Your task to perform on an android device: Do I have any events tomorrow? Image 0: 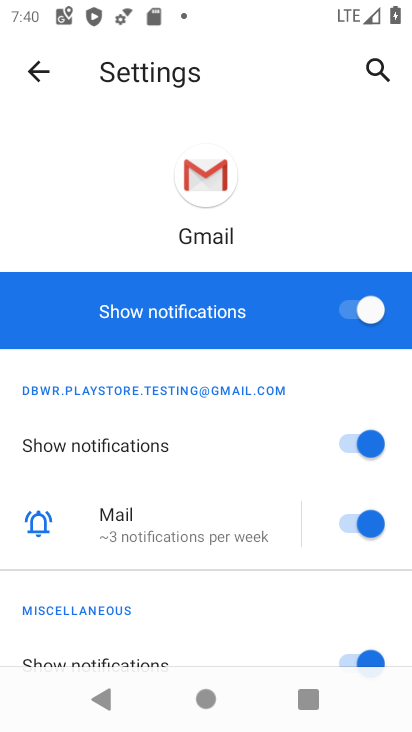
Step 0: press home button
Your task to perform on an android device: Do I have any events tomorrow? Image 1: 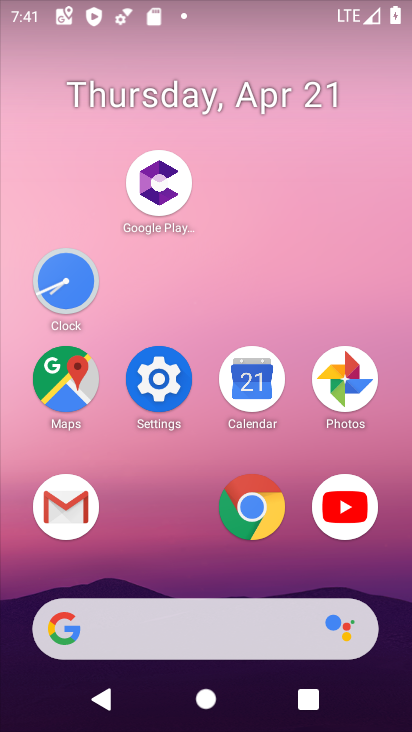
Step 1: click (257, 373)
Your task to perform on an android device: Do I have any events tomorrow? Image 2: 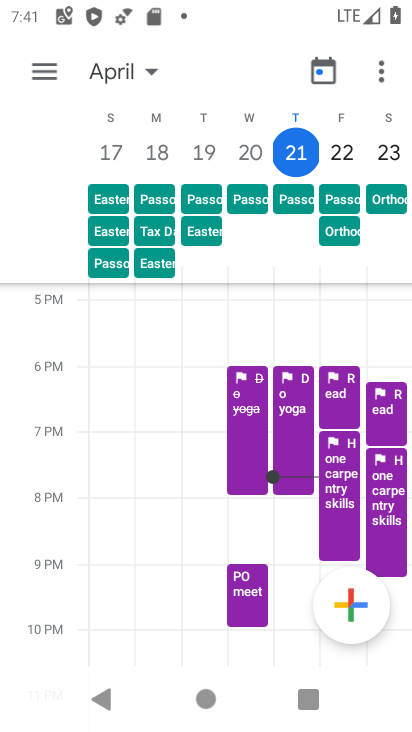
Step 2: click (346, 155)
Your task to perform on an android device: Do I have any events tomorrow? Image 3: 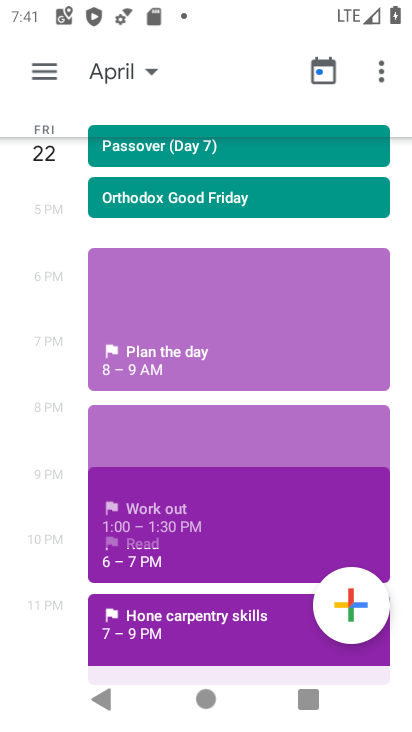
Step 3: click (346, 155)
Your task to perform on an android device: Do I have any events tomorrow? Image 4: 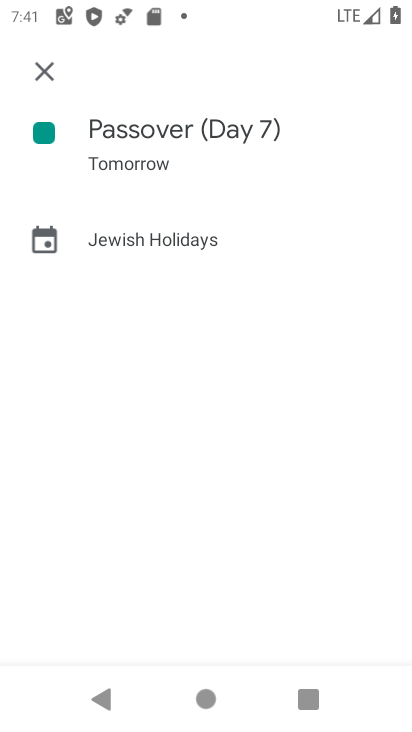
Step 4: click (42, 67)
Your task to perform on an android device: Do I have any events tomorrow? Image 5: 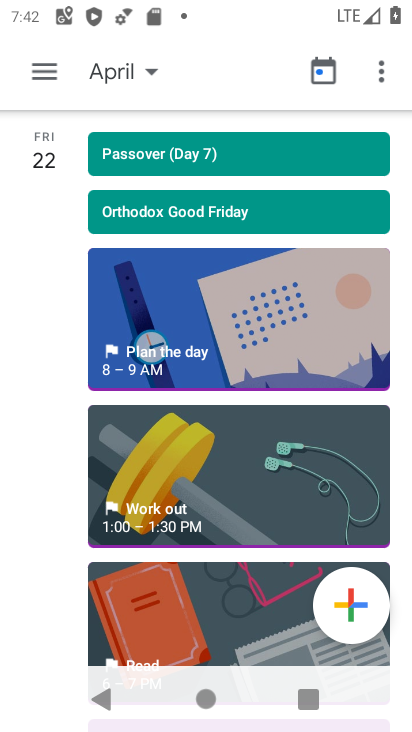
Step 5: task complete